Your task to perform on an android device: What's the weather today? Image 0: 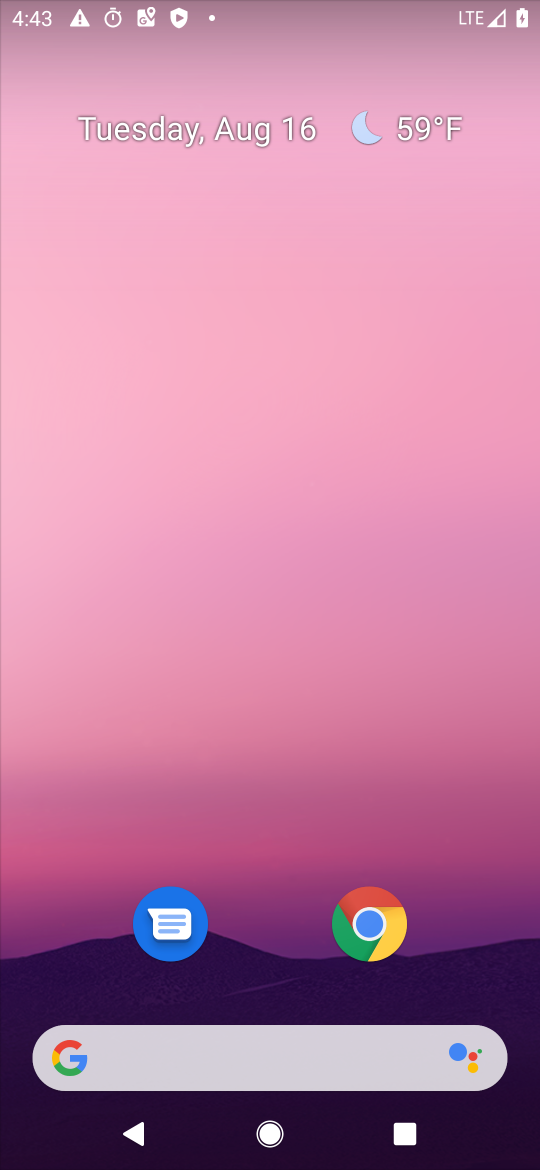
Step 0: click (419, 135)
Your task to perform on an android device: What's the weather today? Image 1: 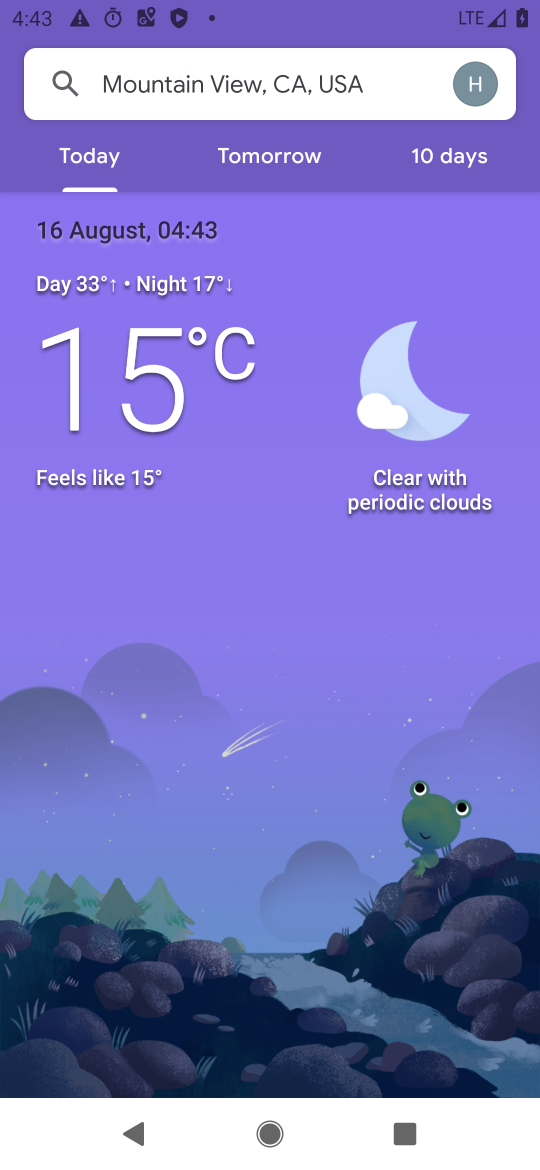
Step 1: task complete